Your task to perform on an android device: Go to Google maps Image 0: 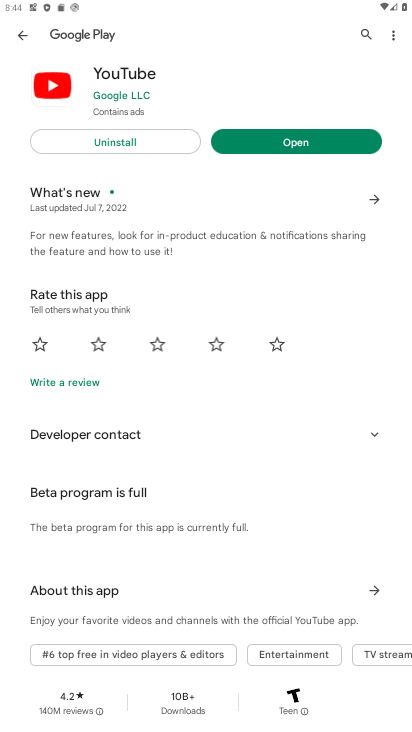
Step 0: press home button
Your task to perform on an android device: Go to Google maps Image 1: 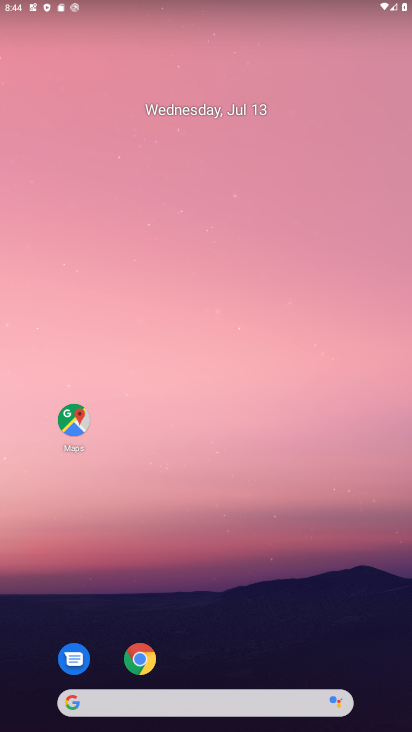
Step 1: click (73, 425)
Your task to perform on an android device: Go to Google maps Image 2: 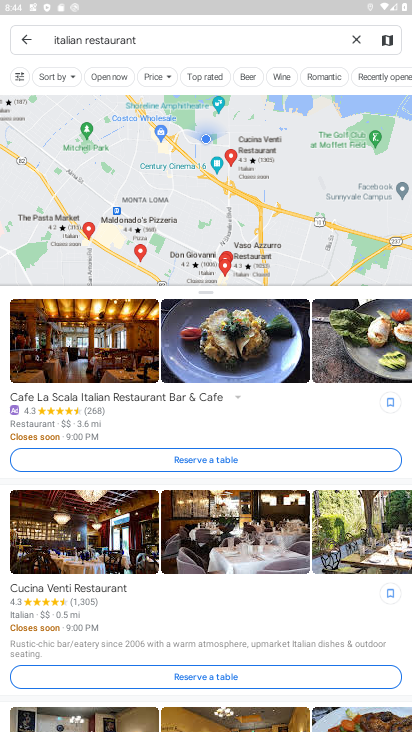
Step 2: task complete